Your task to perform on an android device: Open my contact list Image 0: 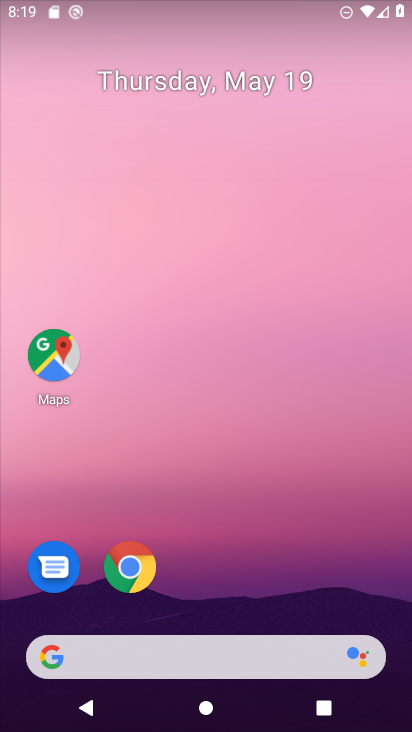
Step 0: drag from (225, 573) to (242, 128)
Your task to perform on an android device: Open my contact list Image 1: 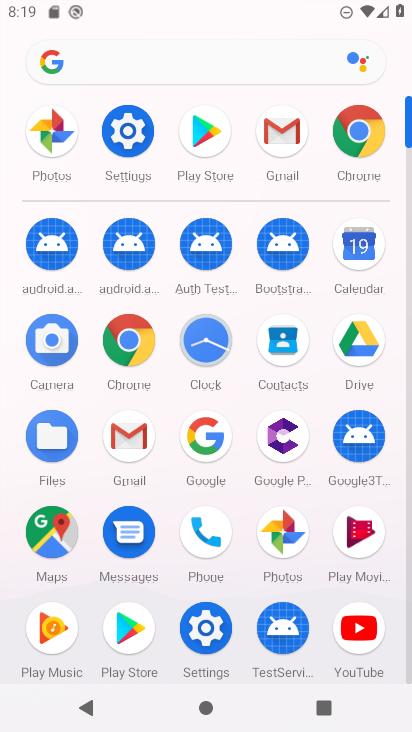
Step 1: click (284, 355)
Your task to perform on an android device: Open my contact list Image 2: 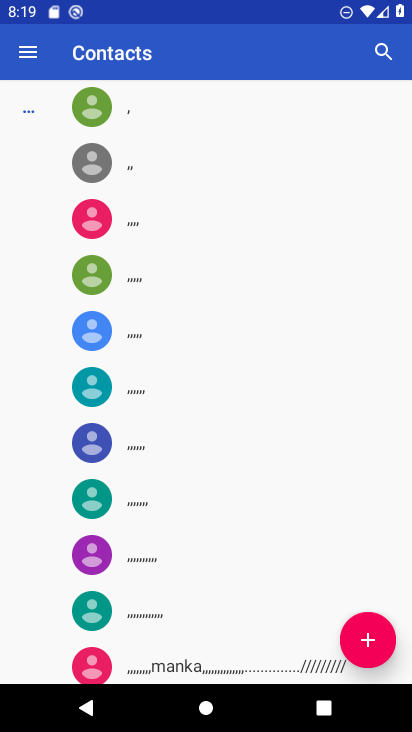
Step 2: task complete